Your task to perform on an android device: Go to CNN.com Image 0: 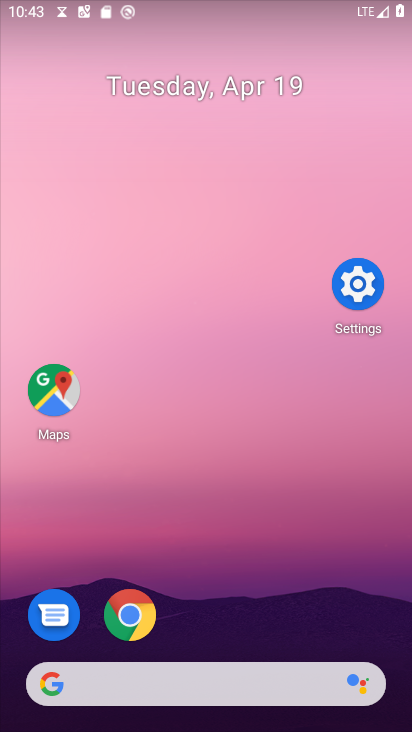
Step 0: click (276, 148)
Your task to perform on an android device: Go to CNN.com Image 1: 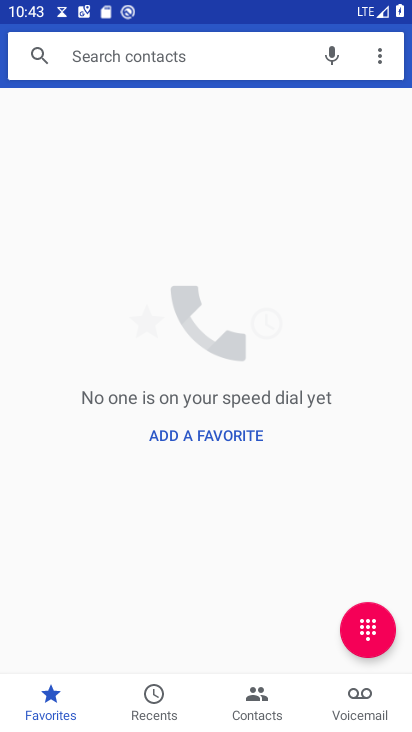
Step 1: drag from (198, 458) to (246, 130)
Your task to perform on an android device: Go to CNN.com Image 2: 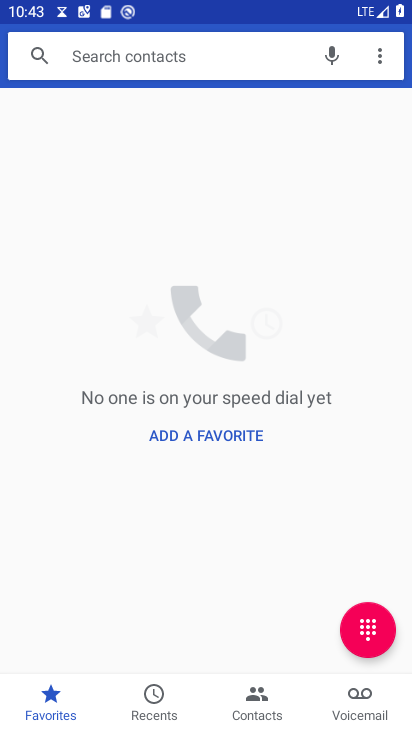
Step 2: press home button
Your task to perform on an android device: Go to CNN.com Image 3: 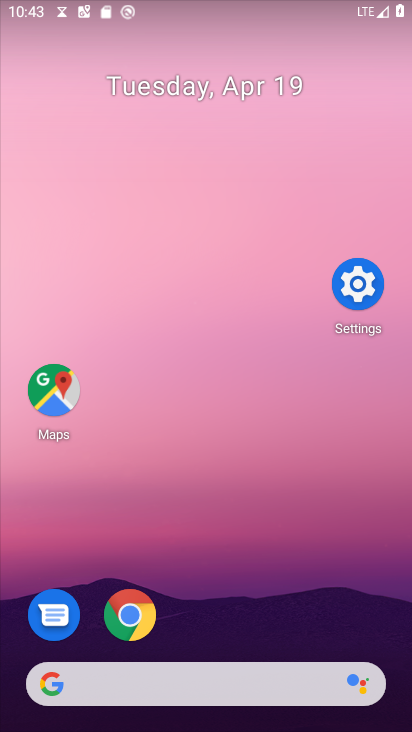
Step 3: click (125, 613)
Your task to perform on an android device: Go to CNN.com Image 4: 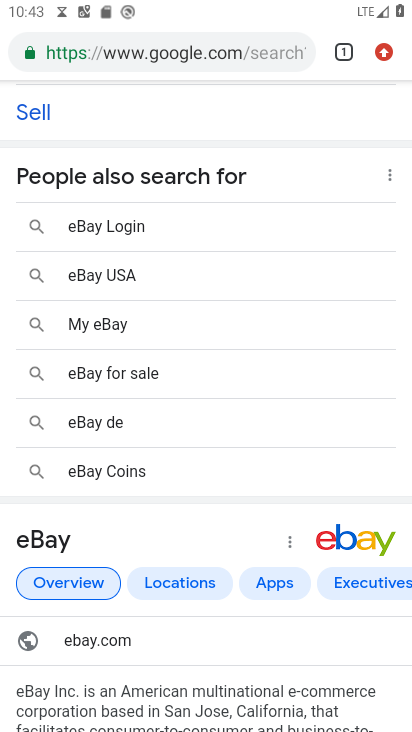
Step 4: click (218, 47)
Your task to perform on an android device: Go to CNN.com Image 5: 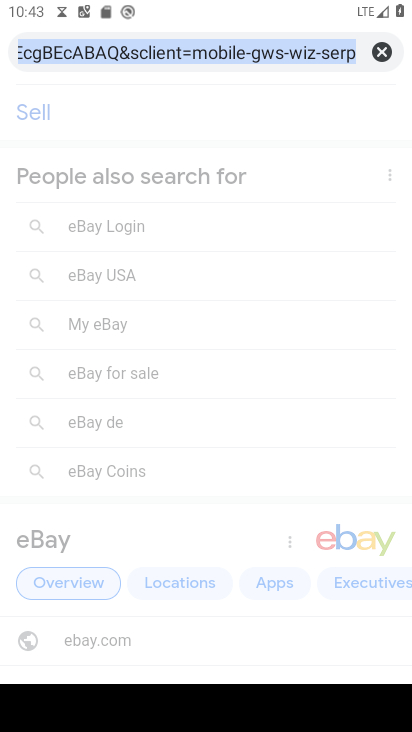
Step 5: click (376, 45)
Your task to perform on an android device: Go to CNN.com Image 6: 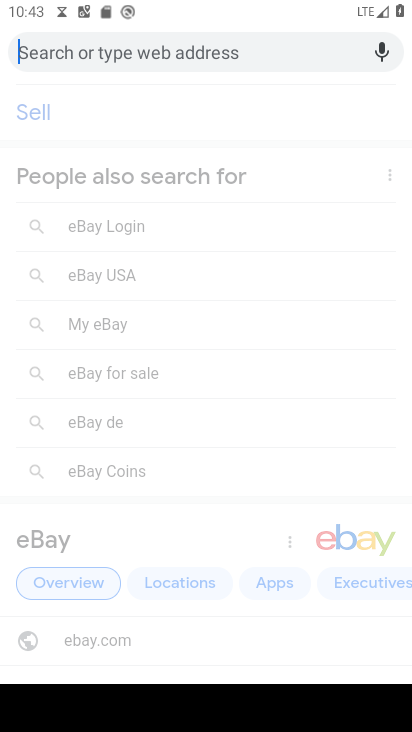
Step 6: click (223, 56)
Your task to perform on an android device: Go to CNN.com Image 7: 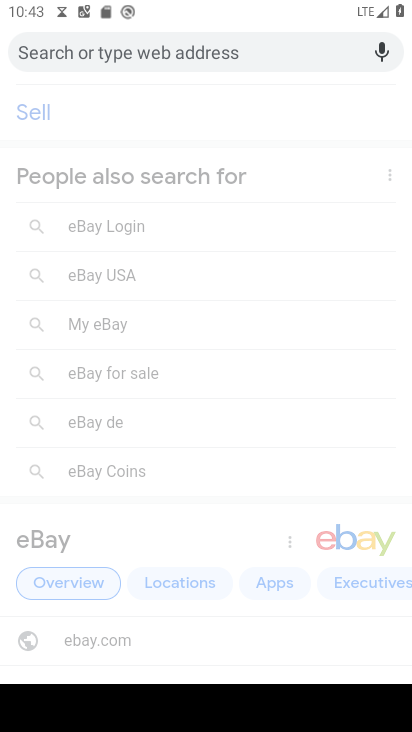
Step 7: type "cnn"
Your task to perform on an android device: Go to CNN.com Image 8: 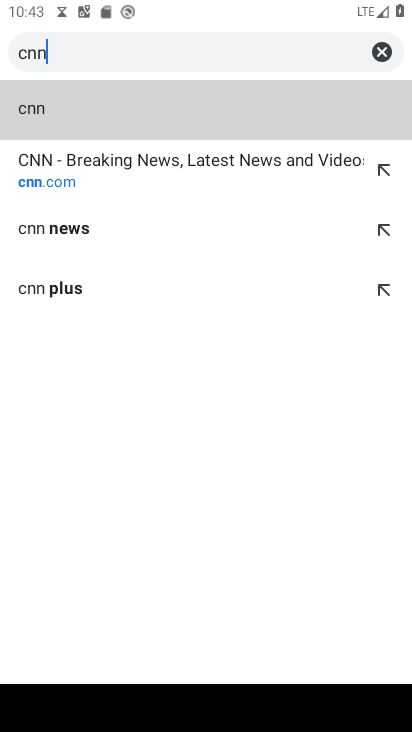
Step 8: click (54, 119)
Your task to perform on an android device: Go to CNN.com Image 9: 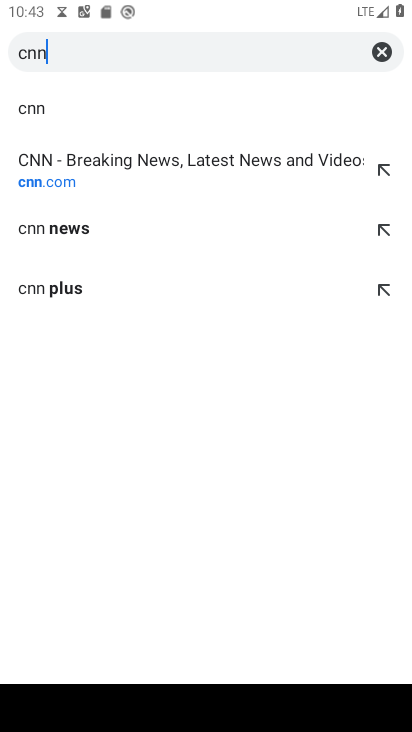
Step 9: click (38, 101)
Your task to perform on an android device: Go to CNN.com Image 10: 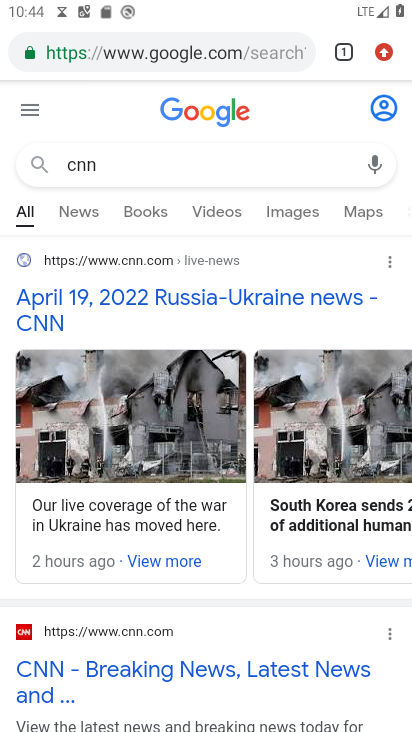
Step 10: drag from (161, 594) to (249, 122)
Your task to perform on an android device: Go to CNN.com Image 11: 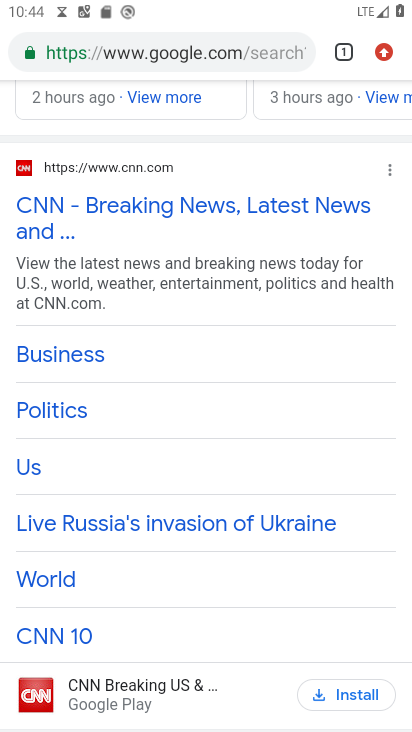
Step 11: drag from (168, 281) to (251, 619)
Your task to perform on an android device: Go to CNN.com Image 12: 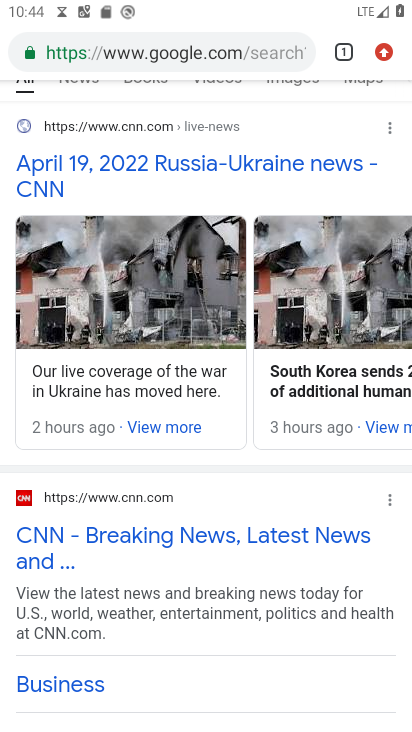
Step 12: click (138, 533)
Your task to perform on an android device: Go to CNN.com Image 13: 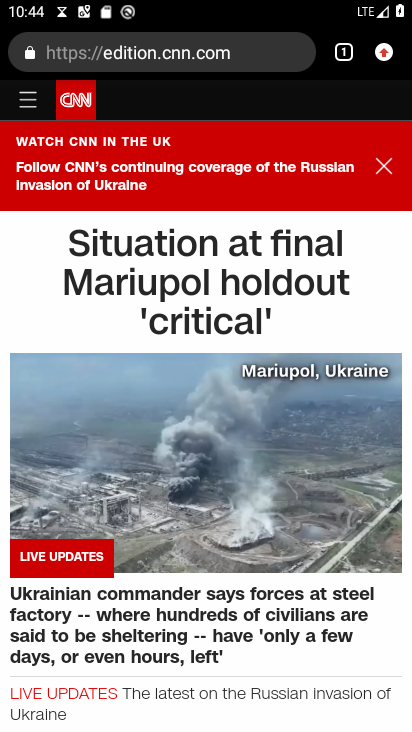
Step 13: task complete